Your task to perform on an android device: Open internet settings Image 0: 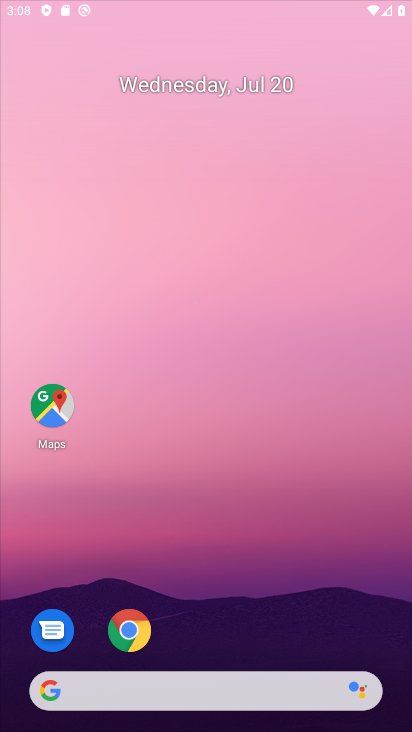
Step 0: press home button
Your task to perform on an android device: Open internet settings Image 1: 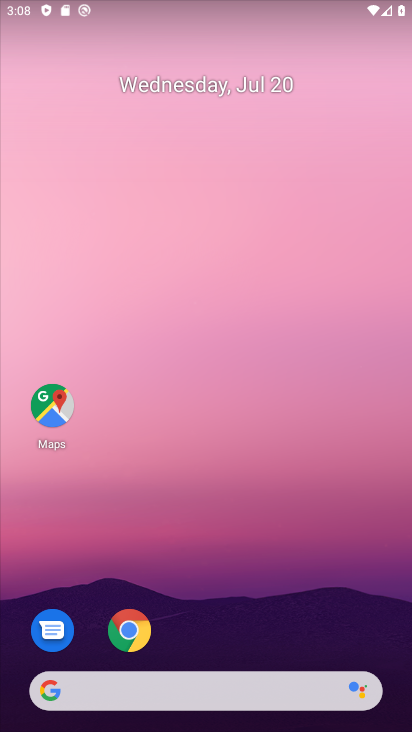
Step 1: drag from (259, 629) to (181, 0)
Your task to perform on an android device: Open internet settings Image 2: 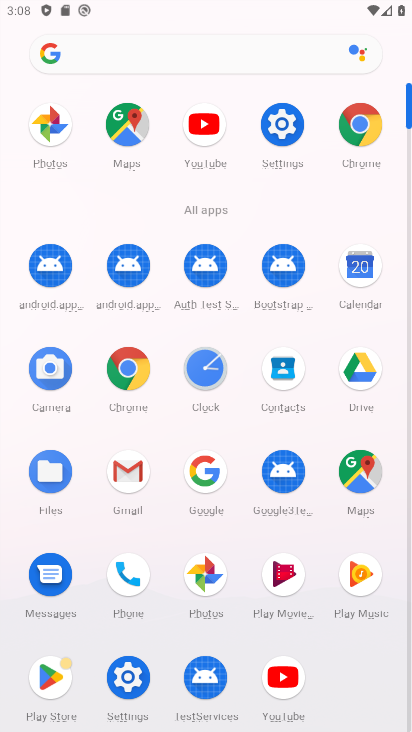
Step 2: click (279, 130)
Your task to perform on an android device: Open internet settings Image 3: 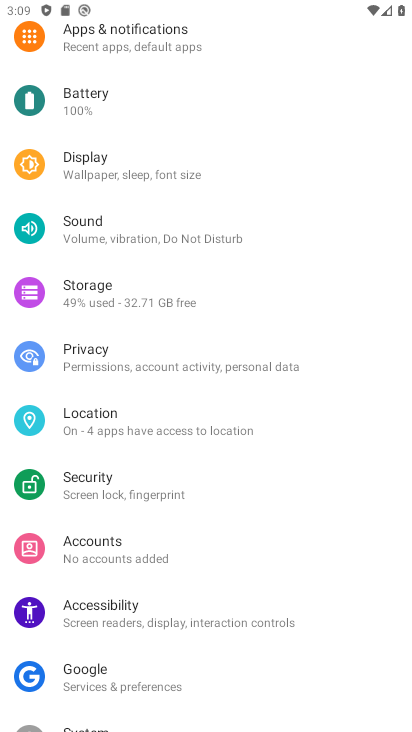
Step 3: drag from (218, 125) to (180, 610)
Your task to perform on an android device: Open internet settings Image 4: 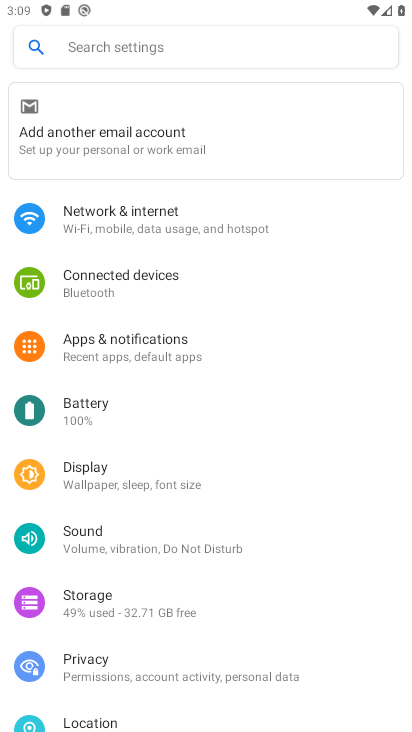
Step 4: click (99, 235)
Your task to perform on an android device: Open internet settings Image 5: 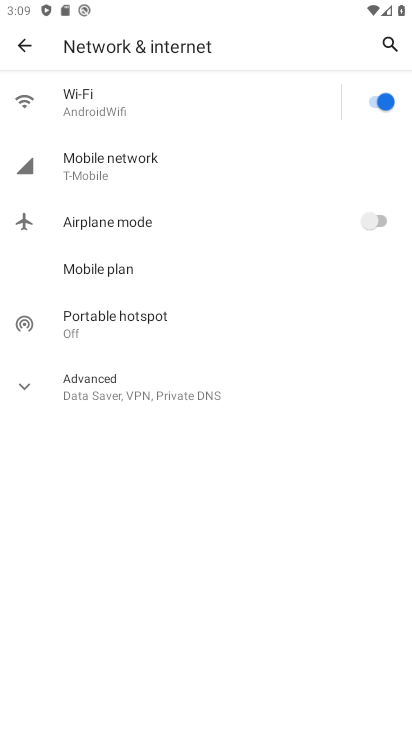
Step 5: task complete